Your task to perform on an android device: turn smart compose on in the gmail app Image 0: 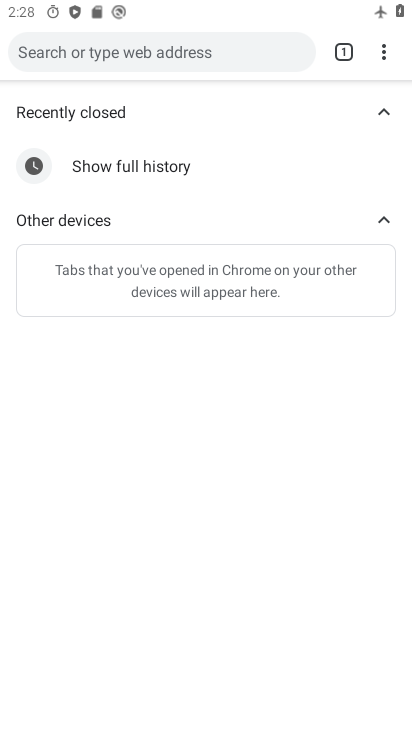
Step 0: press home button
Your task to perform on an android device: turn smart compose on in the gmail app Image 1: 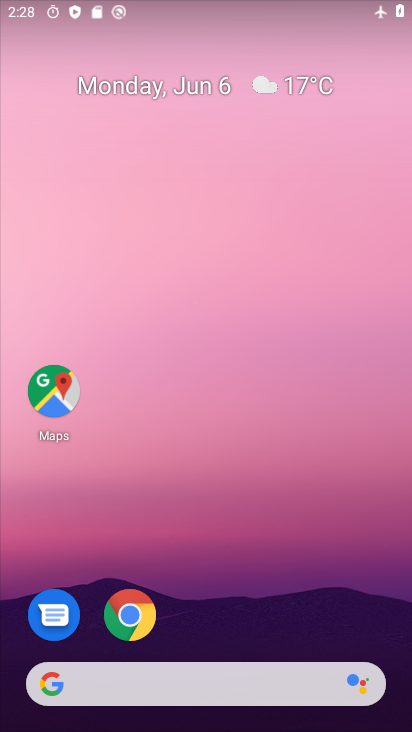
Step 1: drag from (211, 638) to (354, 16)
Your task to perform on an android device: turn smart compose on in the gmail app Image 2: 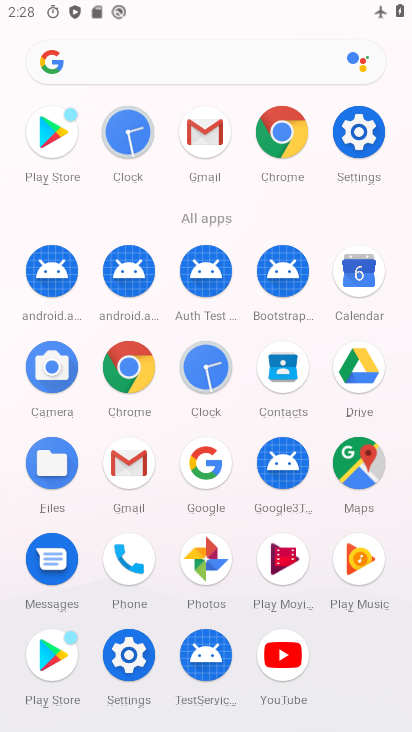
Step 2: click (137, 468)
Your task to perform on an android device: turn smart compose on in the gmail app Image 3: 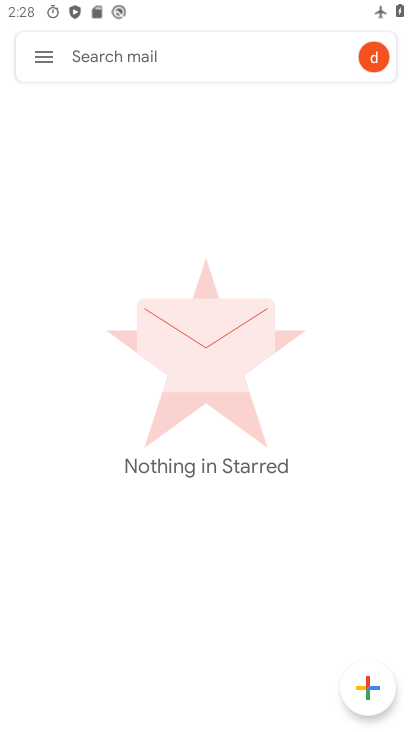
Step 3: click (45, 55)
Your task to perform on an android device: turn smart compose on in the gmail app Image 4: 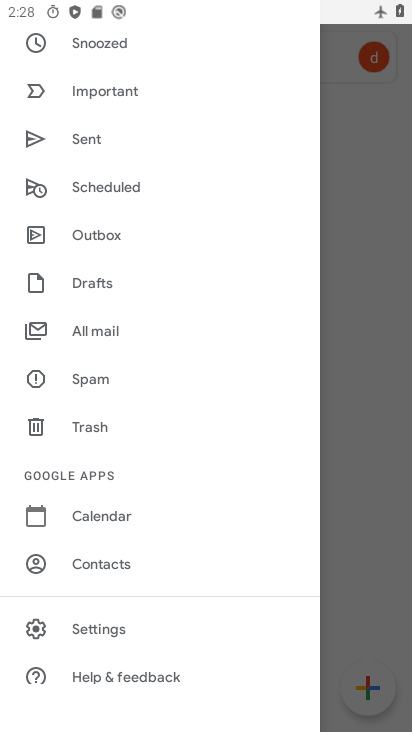
Step 4: click (125, 638)
Your task to perform on an android device: turn smart compose on in the gmail app Image 5: 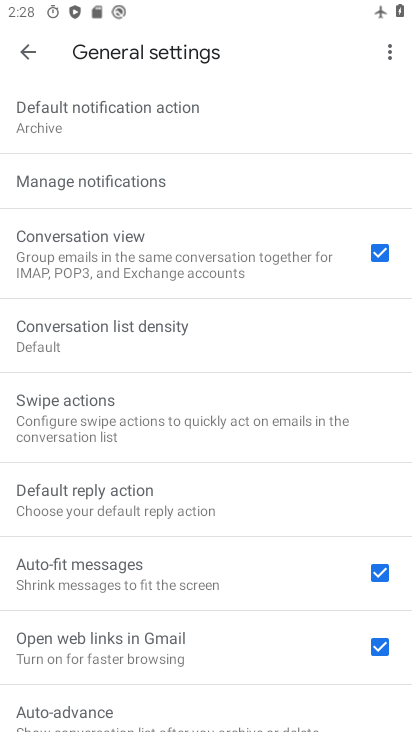
Step 5: click (25, 54)
Your task to perform on an android device: turn smart compose on in the gmail app Image 6: 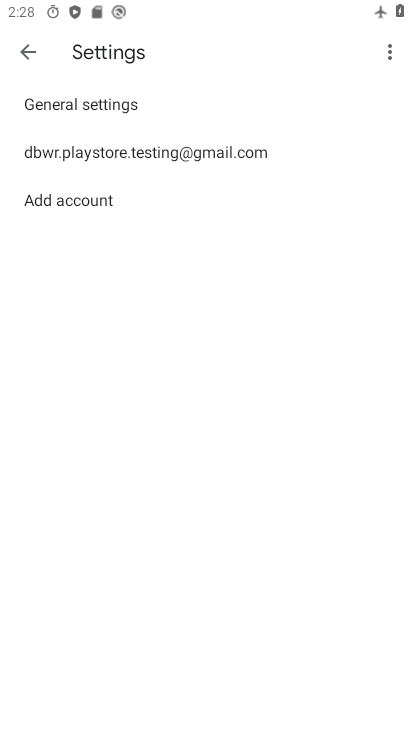
Step 6: click (196, 154)
Your task to perform on an android device: turn smart compose on in the gmail app Image 7: 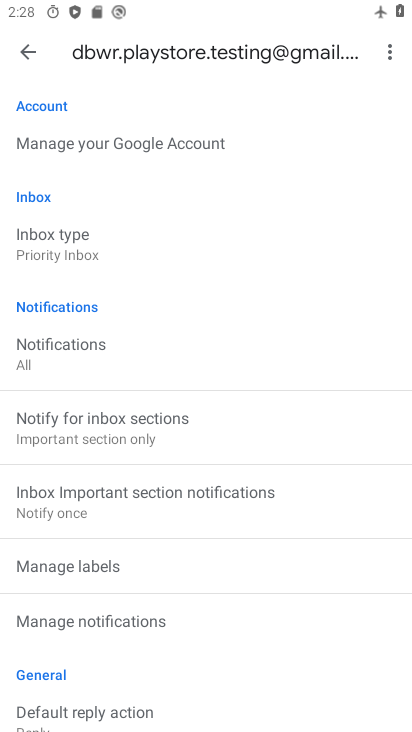
Step 7: task complete